Your task to perform on an android device: turn on wifi Image 0: 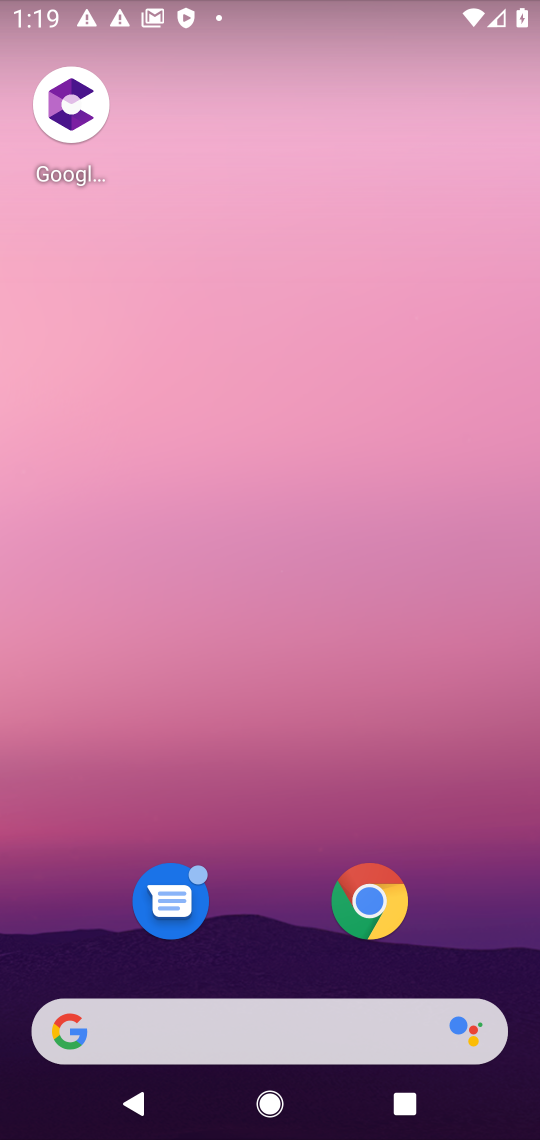
Step 0: drag from (296, 935) to (189, 285)
Your task to perform on an android device: turn on wifi Image 1: 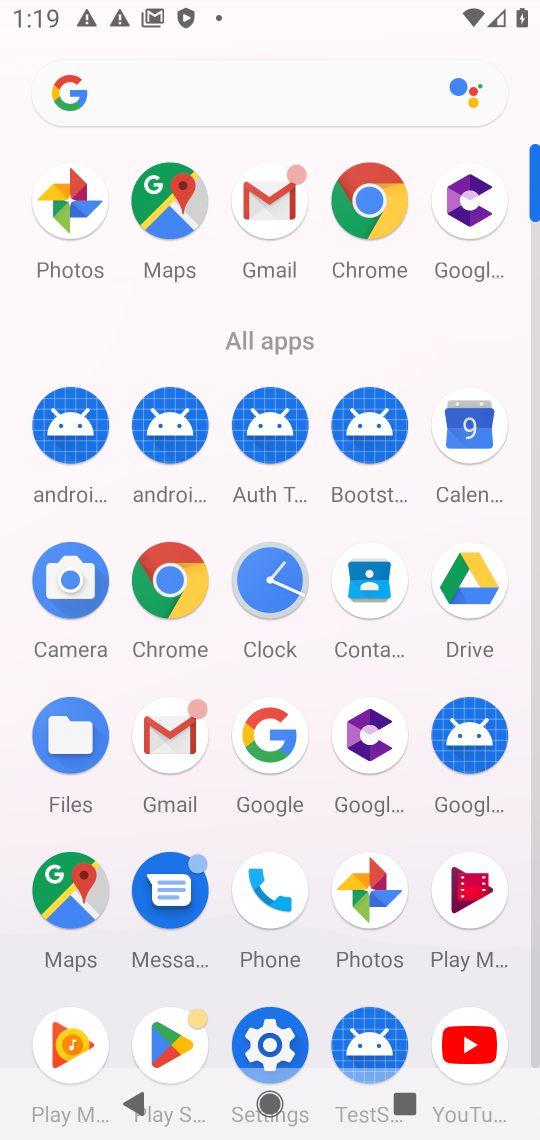
Step 1: drag from (270, 1035) to (61, 367)
Your task to perform on an android device: turn on wifi Image 2: 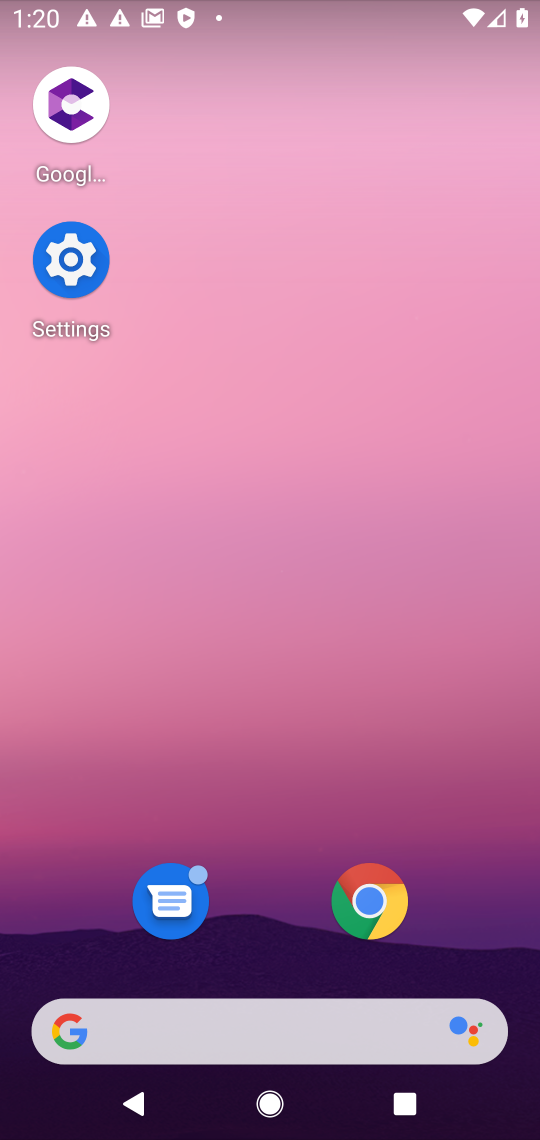
Step 2: click (80, 258)
Your task to perform on an android device: turn on wifi Image 3: 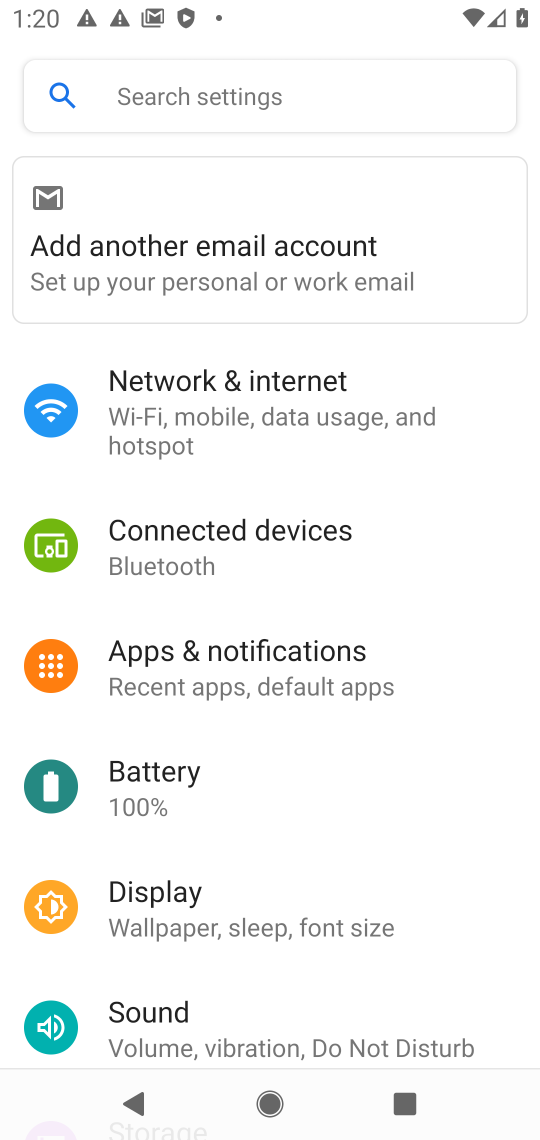
Step 3: click (258, 406)
Your task to perform on an android device: turn on wifi Image 4: 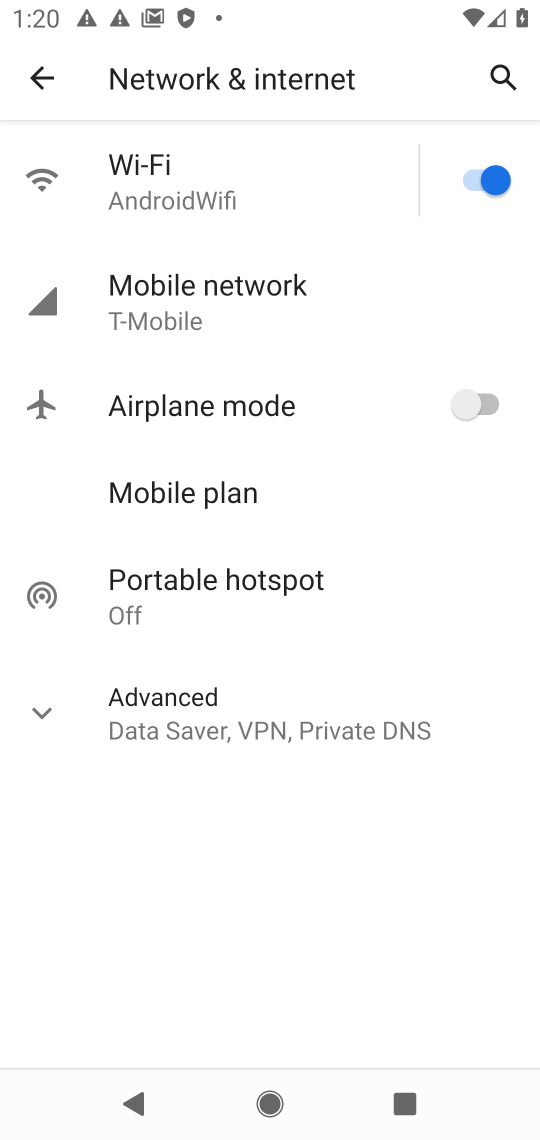
Step 4: task complete